Your task to perform on an android device: toggle sleep mode Image 0: 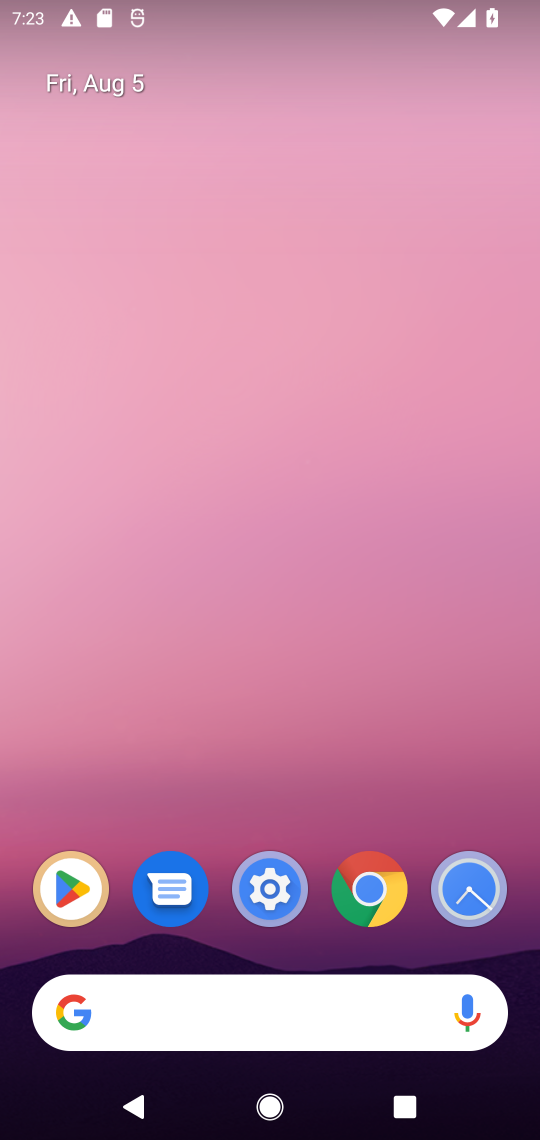
Step 0: drag from (398, 10) to (325, 931)
Your task to perform on an android device: toggle sleep mode Image 1: 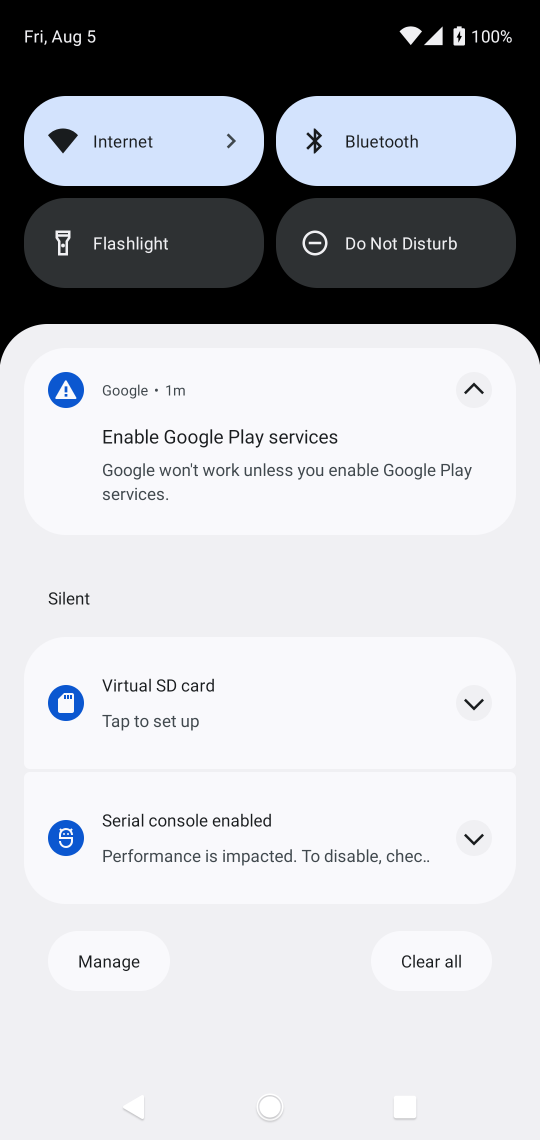
Step 1: task complete